Your task to perform on an android device: check storage Image 0: 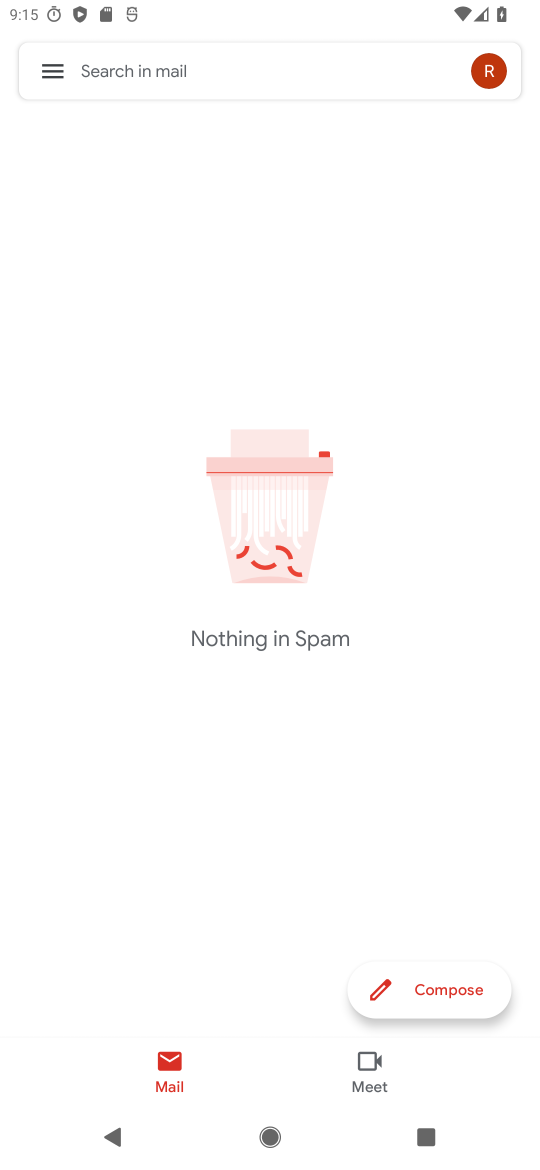
Step 0: press home button
Your task to perform on an android device: check storage Image 1: 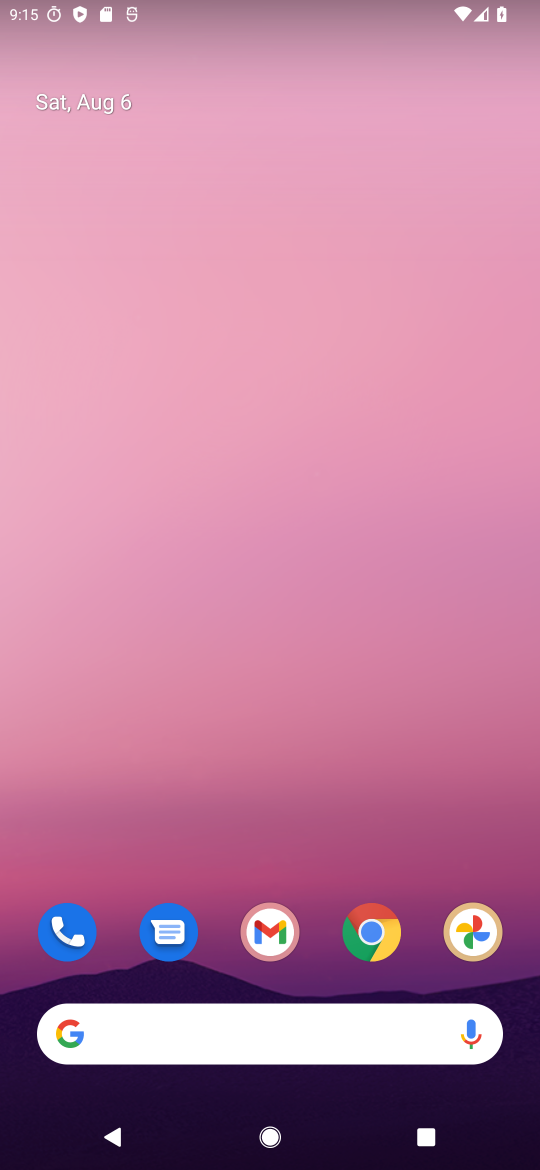
Step 1: drag from (228, 1035) to (352, 213)
Your task to perform on an android device: check storage Image 2: 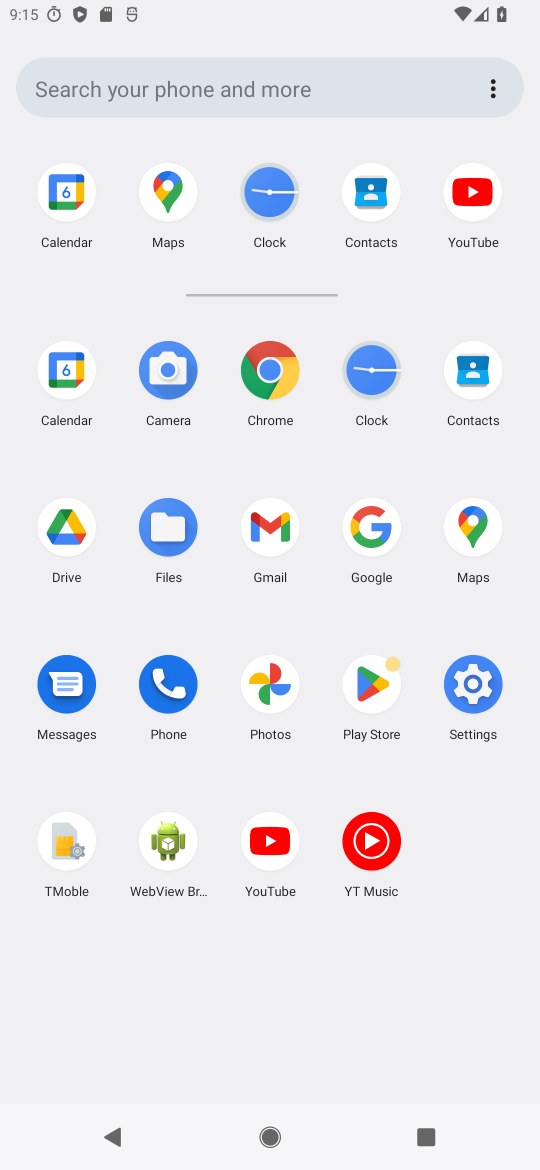
Step 2: click (489, 671)
Your task to perform on an android device: check storage Image 3: 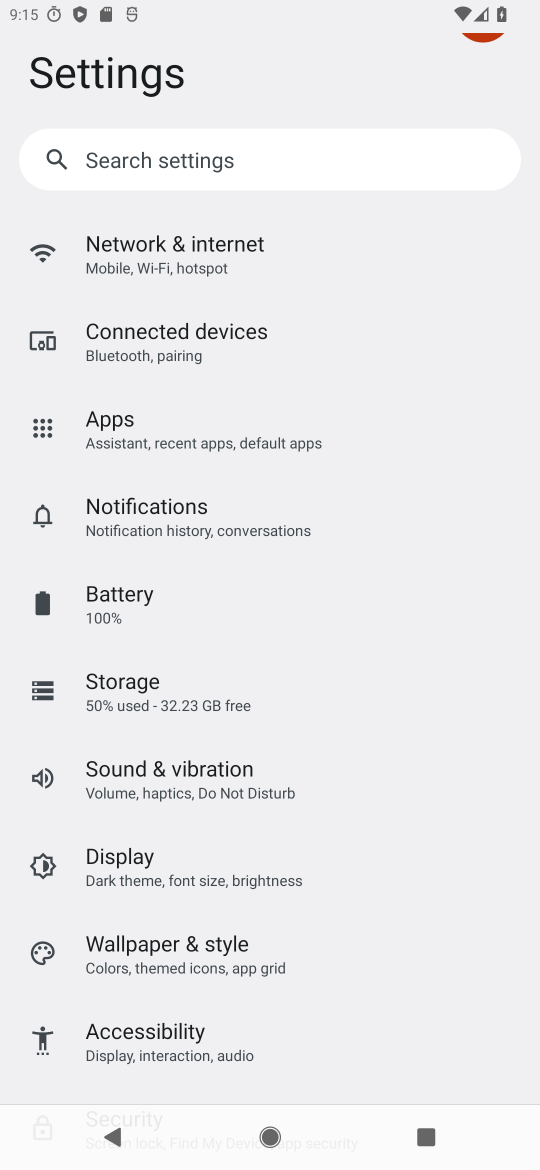
Step 3: click (160, 676)
Your task to perform on an android device: check storage Image 4: 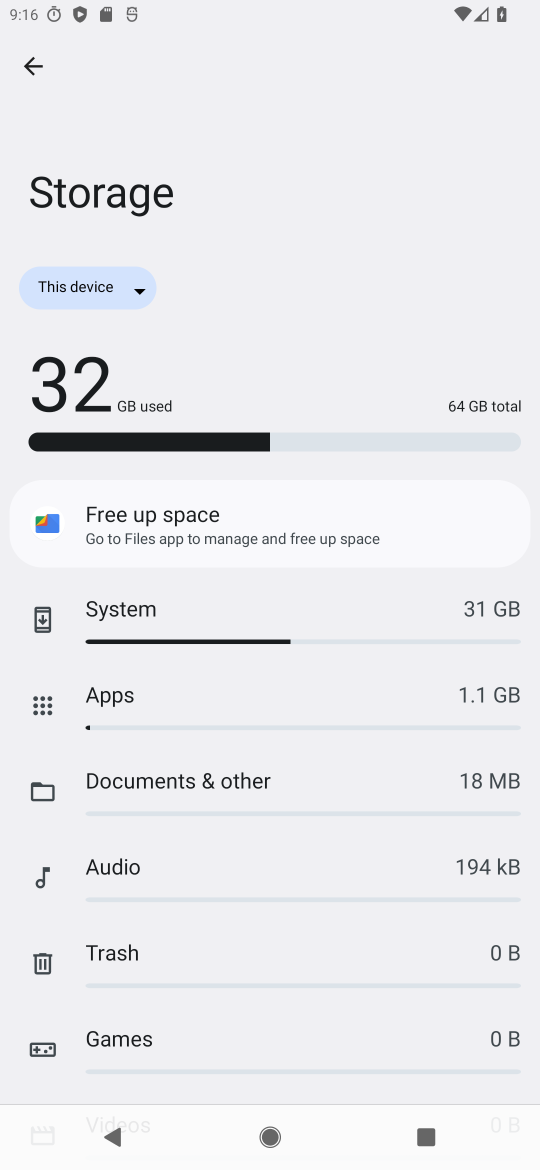
Step 4: task complete